Your task to perform on an android device: Go to Yahoo.com Image 0: 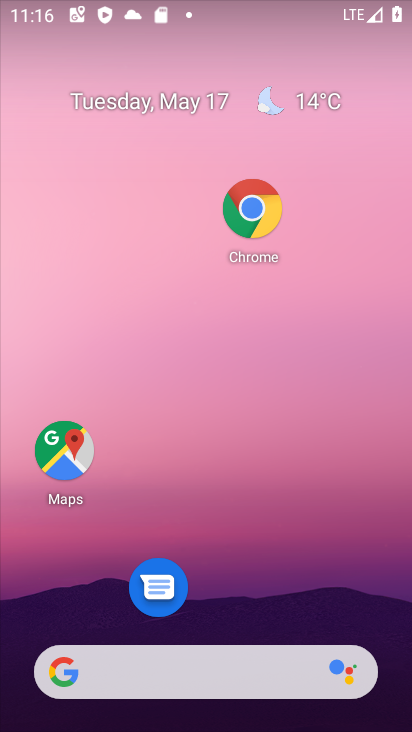
Step 0: click (250, 211)
Your task to perform on an android device: Go to Yahoo.com Image 1: 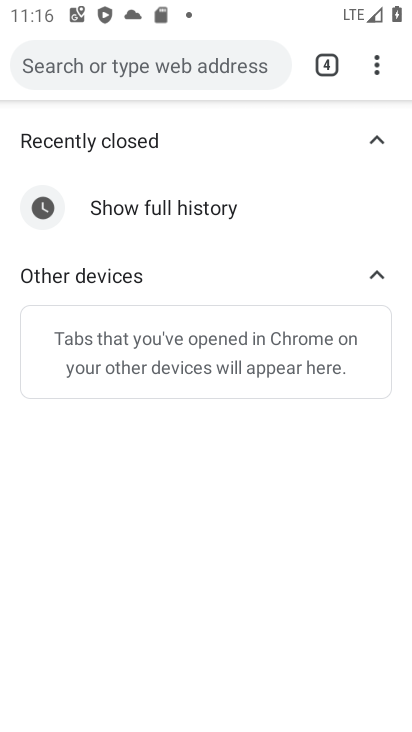
Step 1: click (380, 60)
Your task to perform on an android device: Go to Yahoo.com Image 2: 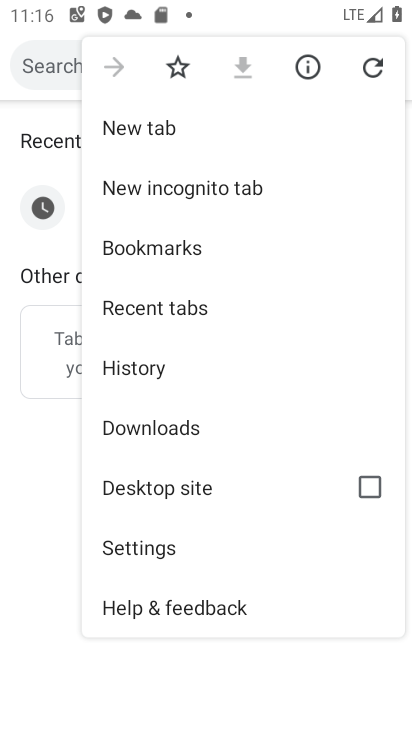
Step 2: click (114, 120)
Your task to perform on an android device: Go to Yahoo.com Image 3: 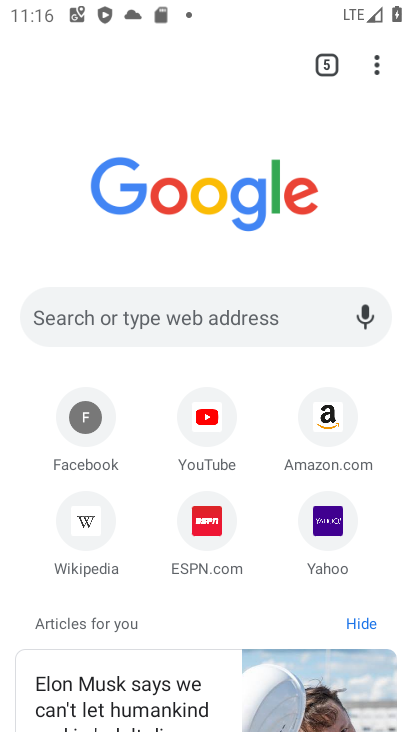
Step 3: click (332, 528)
Your task to perform on an android device: Go to Yahoo.com Image 4: 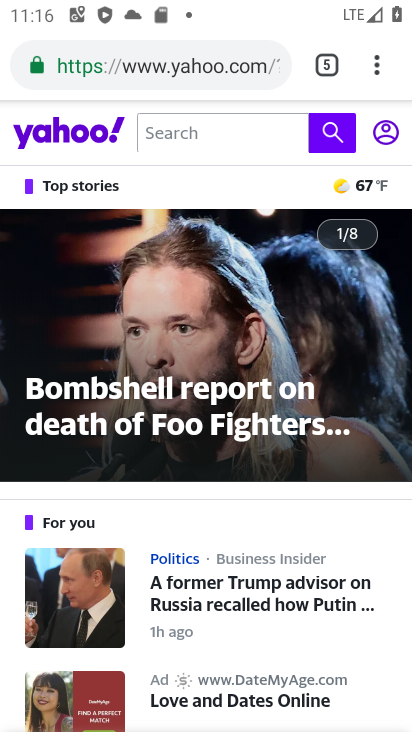
Step 4: task complete